Your task to perform on an android device: Open display settings Image 0: 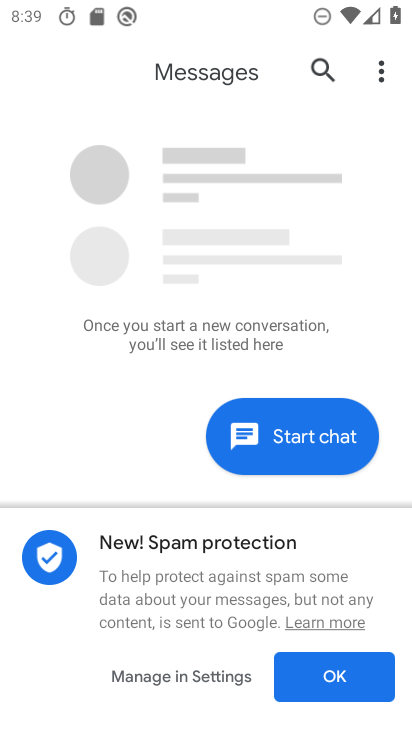
Step 0: press home button
Your task to perform on an android device: Open display settings Image 1: 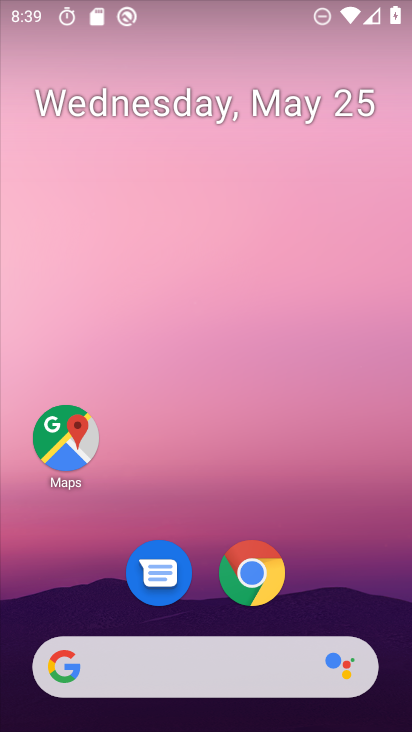
Step 1: drag from (384, 549) to (347, 179)
Your task to perform on an android device: Open display settings Image 2: 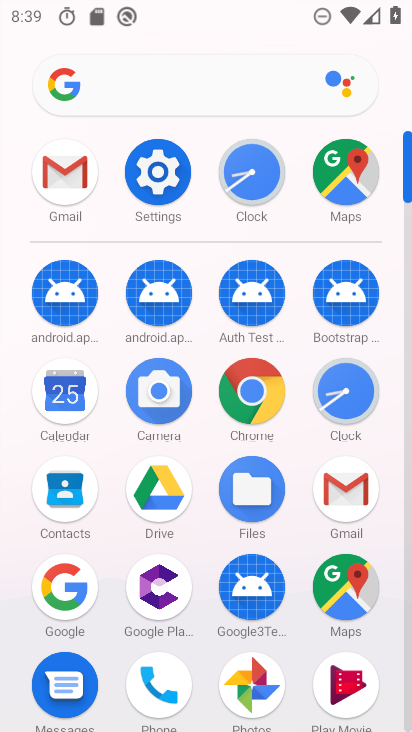
Step 2: click (152, 158)
Your task to perform on an android device: Open display settings Image 3: 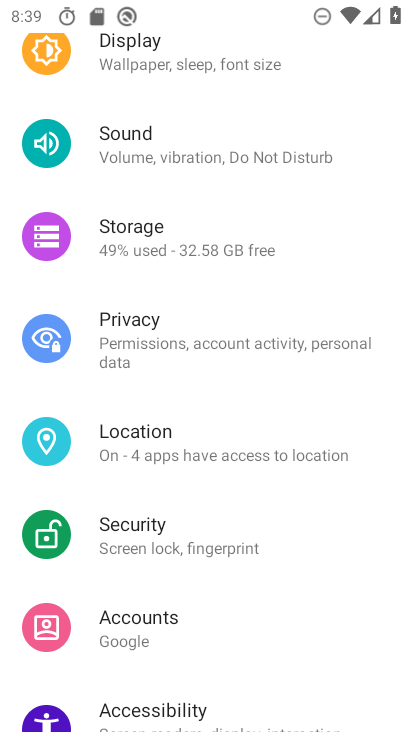
Step 3: click (131, 54)
Your task to perform on an android device: Open display settings Image 4: 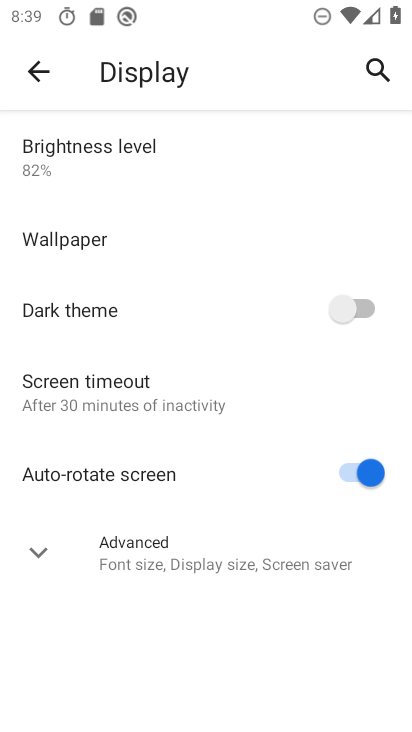
Step 4: drag from (265, 605) to (243, 483)
Your task to perform on an android device: Open display settings Image 5: 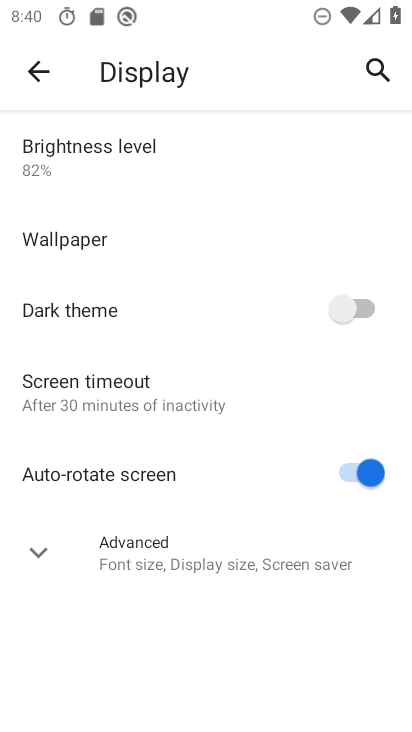
Step 5: click (38, 546)
Your task to perform on an android device: Open display settings Image 6: 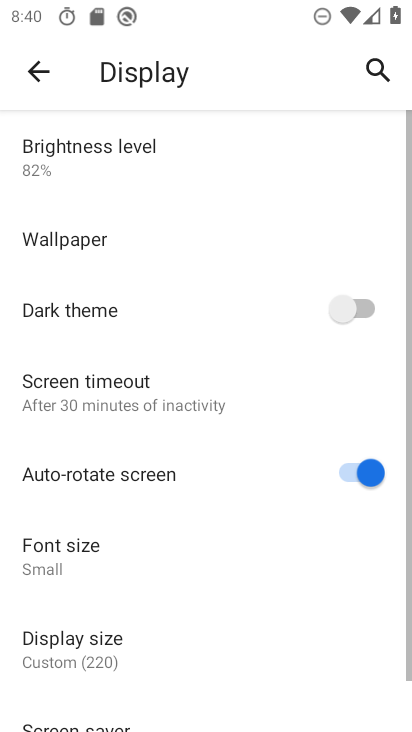
Step 6: task complete